Your task to perform on an android device: open wifi settings Image 0: 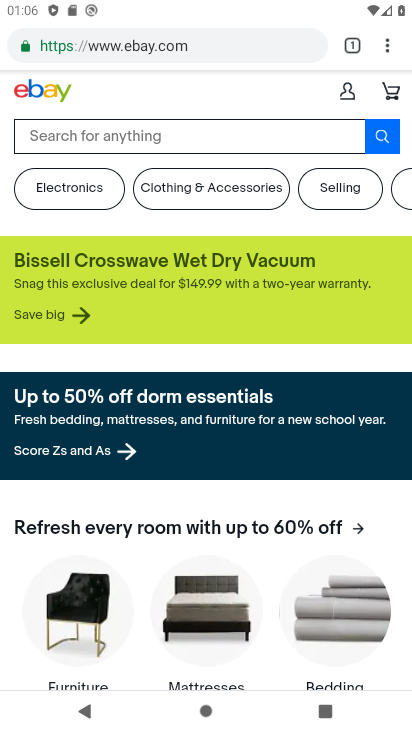
Step 0: press home button
Your task to perform on an android device: open wifi settings Image 1: 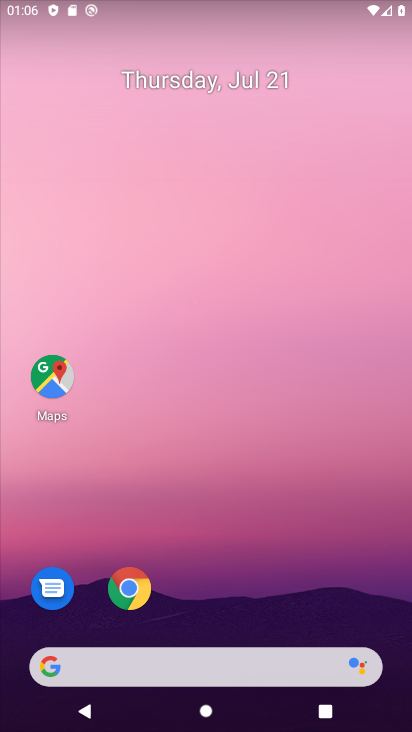
Step 1: drag from (135, 8) to (118, 507)
Your task to perform on an android device: open wifi settings Image 2: 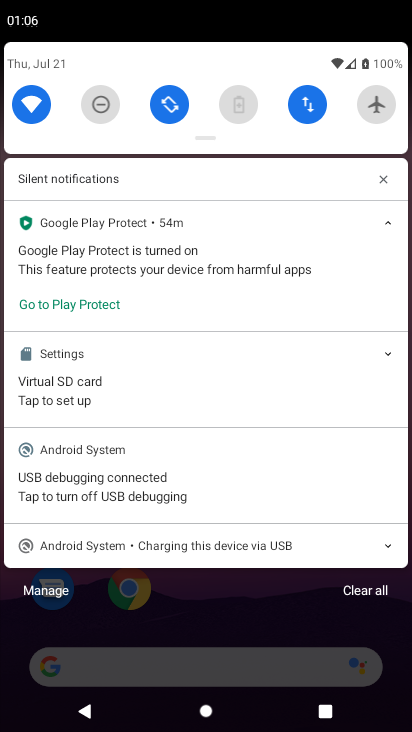
Step 2: click (26, 98)
Your task to perform on an android device: open wifi settings Image 3: 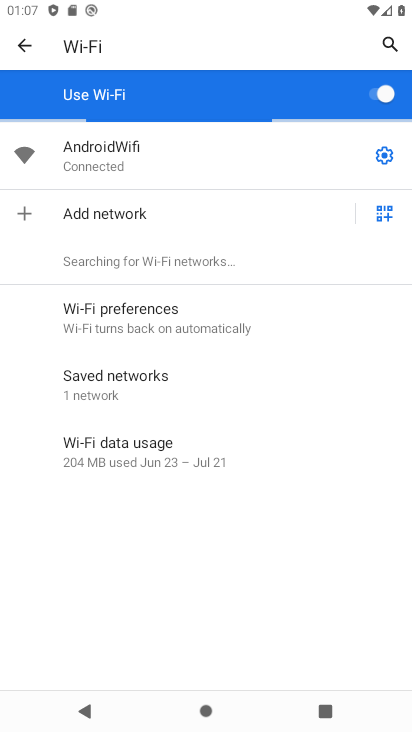
Step 3: task complete